Your task to perform on an android device: open app "Reddit" (install if not already installed) Image 0: 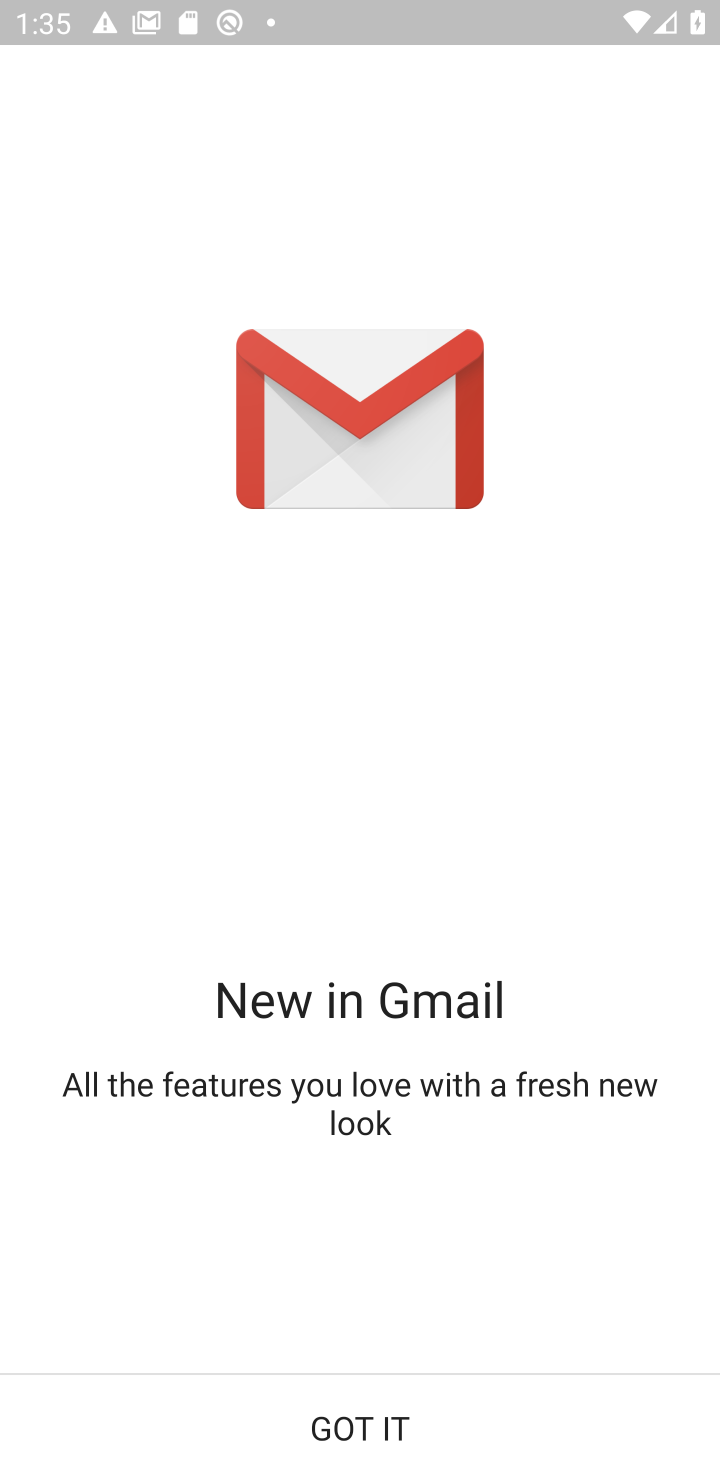
Step 0: press home button
Your task to perform on an android device: open app "Reddit" (install if not already installed) Image 1: 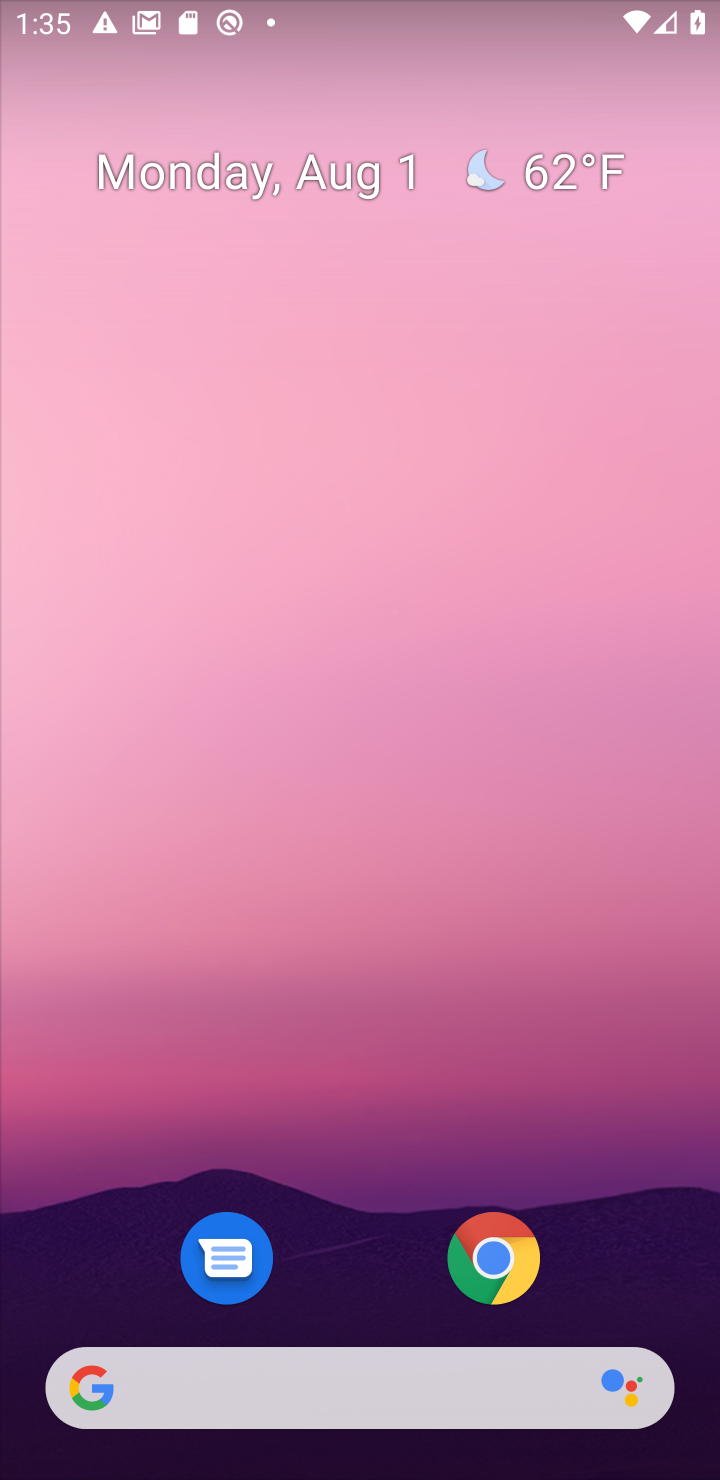
Step 1: drag from (394, 753) to (520, 4)
Your task to perform on an android device: open app "Reddit" (install if not already installed) Image 2: 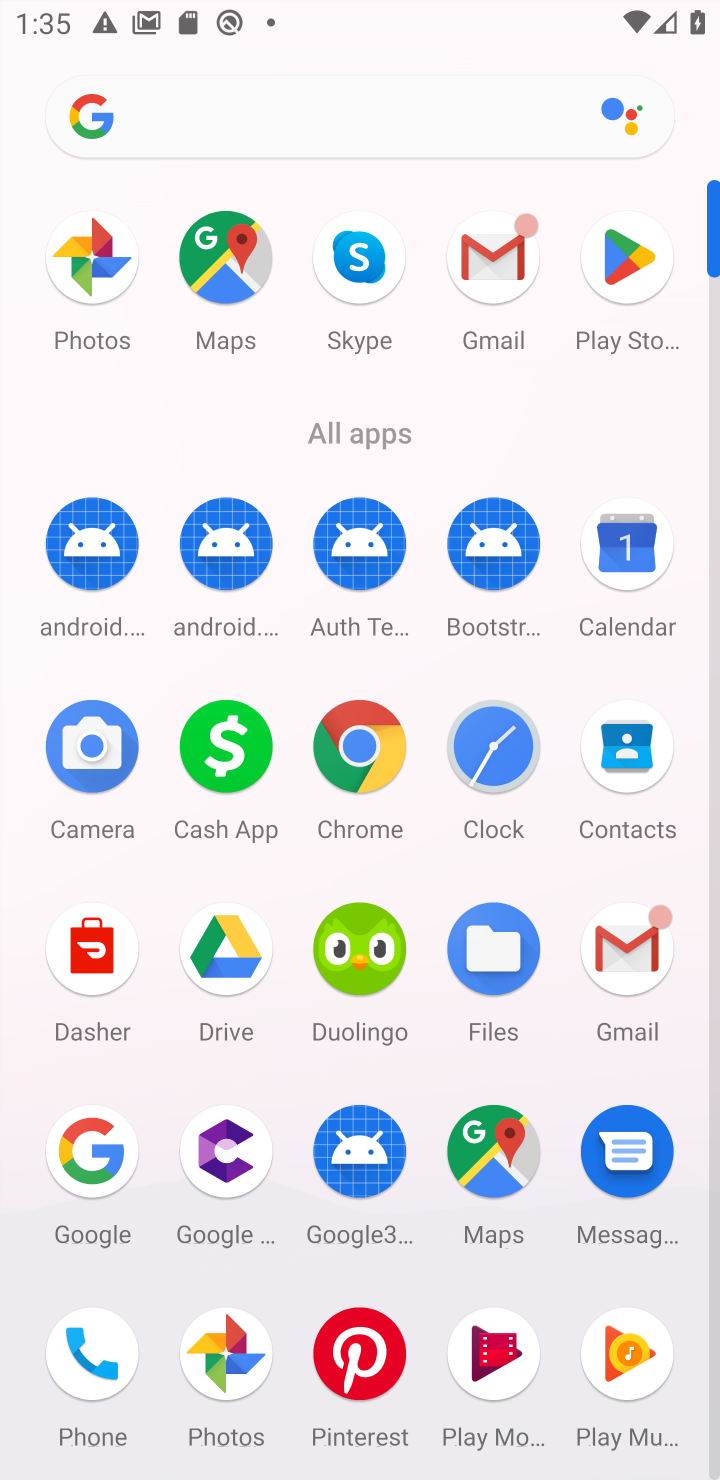
Step 2: click (647, 234)
Your task to perform on an android device: open app "Reddit" (install if not already installed) Image 3: 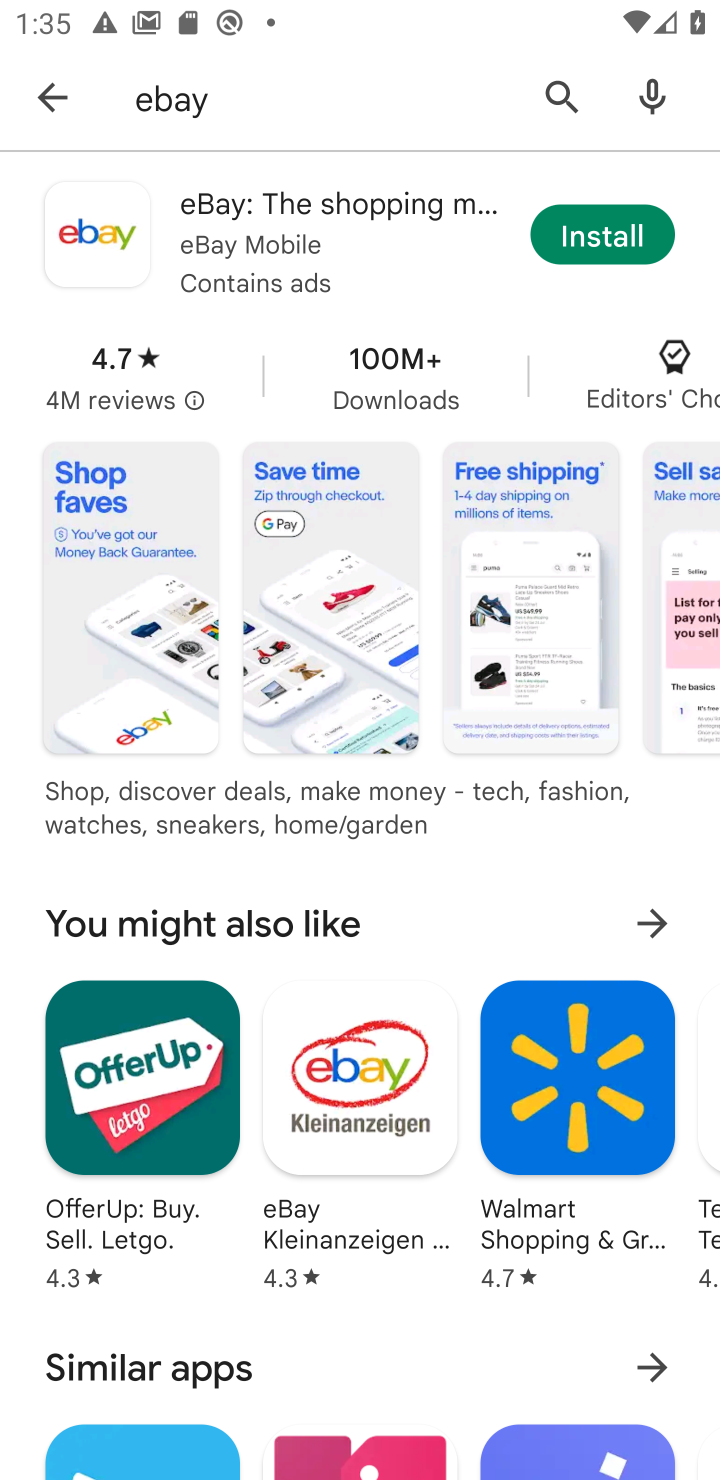
Step 3: click (562, 81)
Your task to perform on an android device: open app "Reddit" (install if not already installed) Image 4: 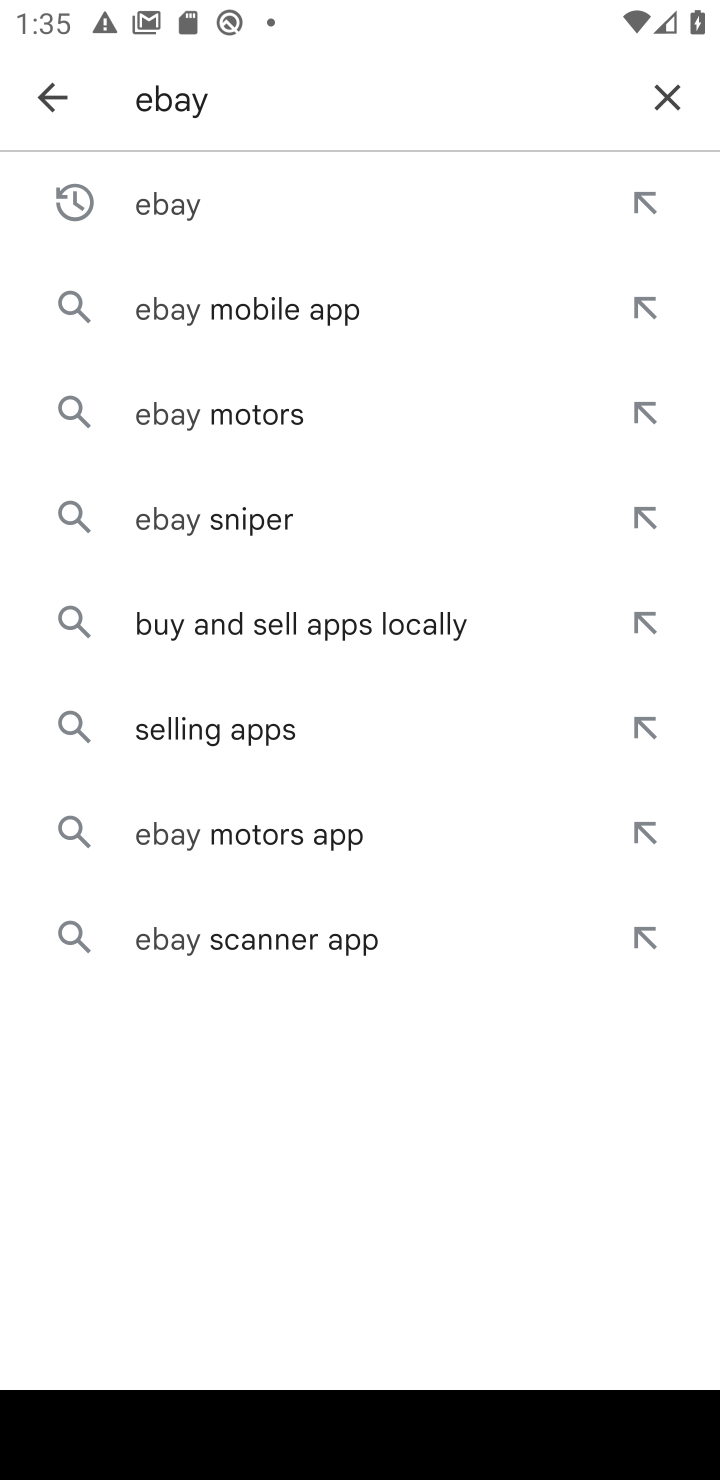
Step 4: click (668, 77)
Your task to perform on an android device: open app "Reddit" (install if not already installed) Image 5: 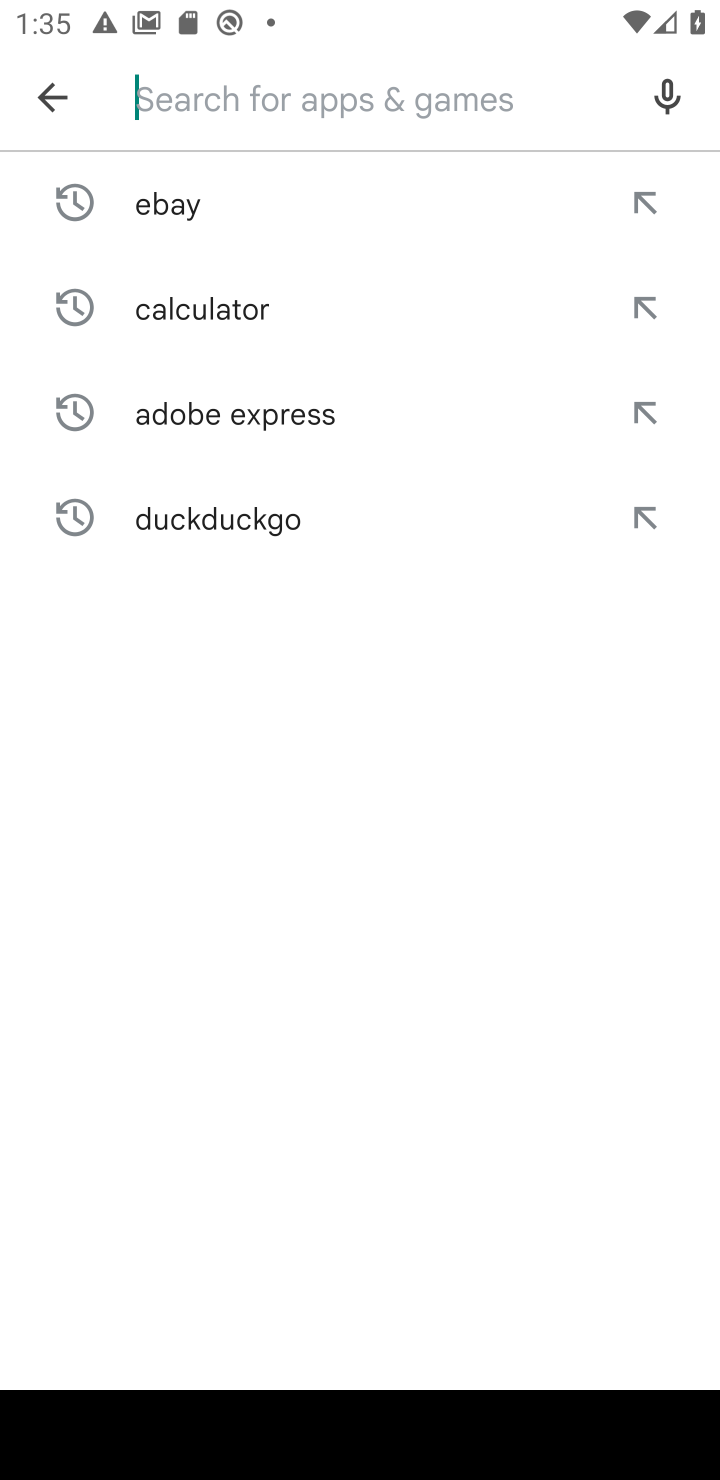
Step 5: click (299, 98)
Your task to perform on an android device: open app "Reddit" (install if not already installed) Image 6: 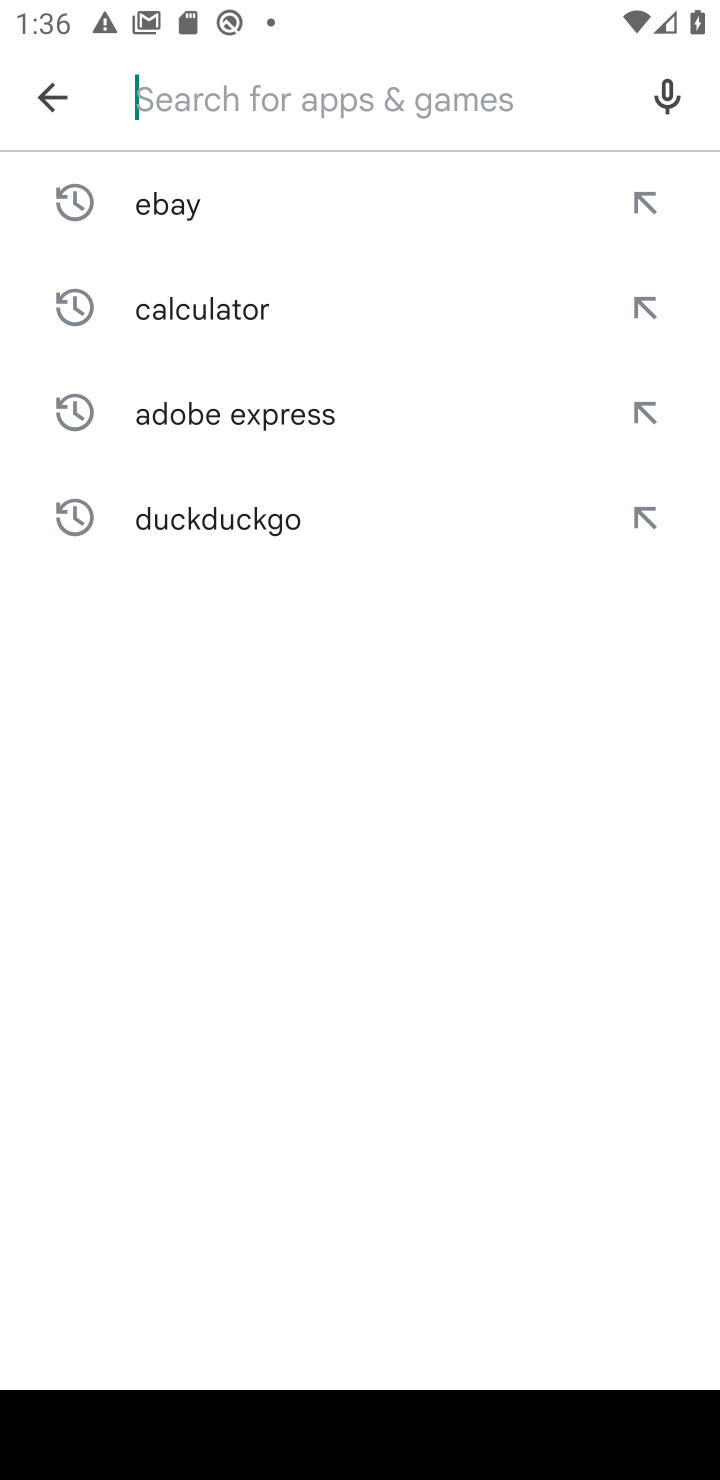
Step 6: type "reddit"
Your task to perform on an android device: open app "Reddit" (install if not already installed) Image 7: 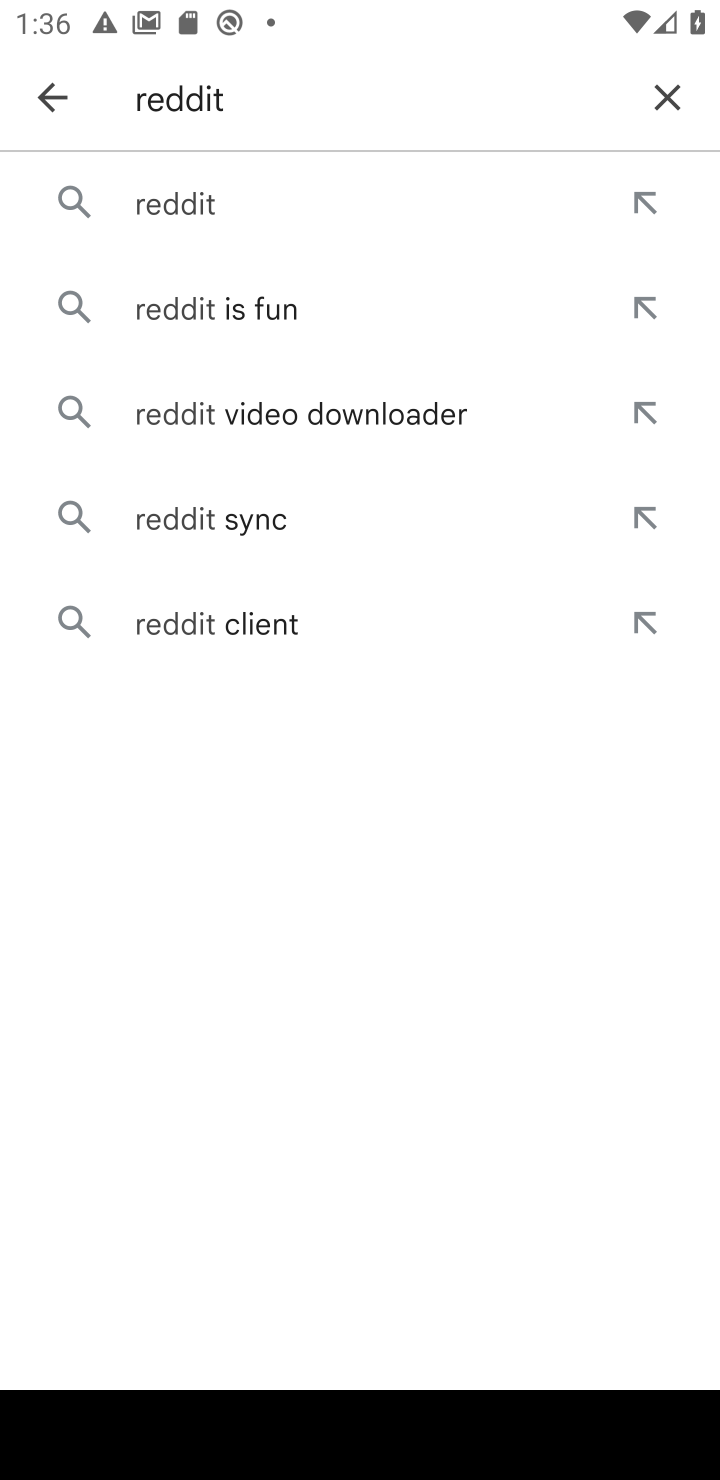
Step 7: click (226, 216)
Your task to perform on an android device: open app "Reddit" (install if not already installed) Image 8: 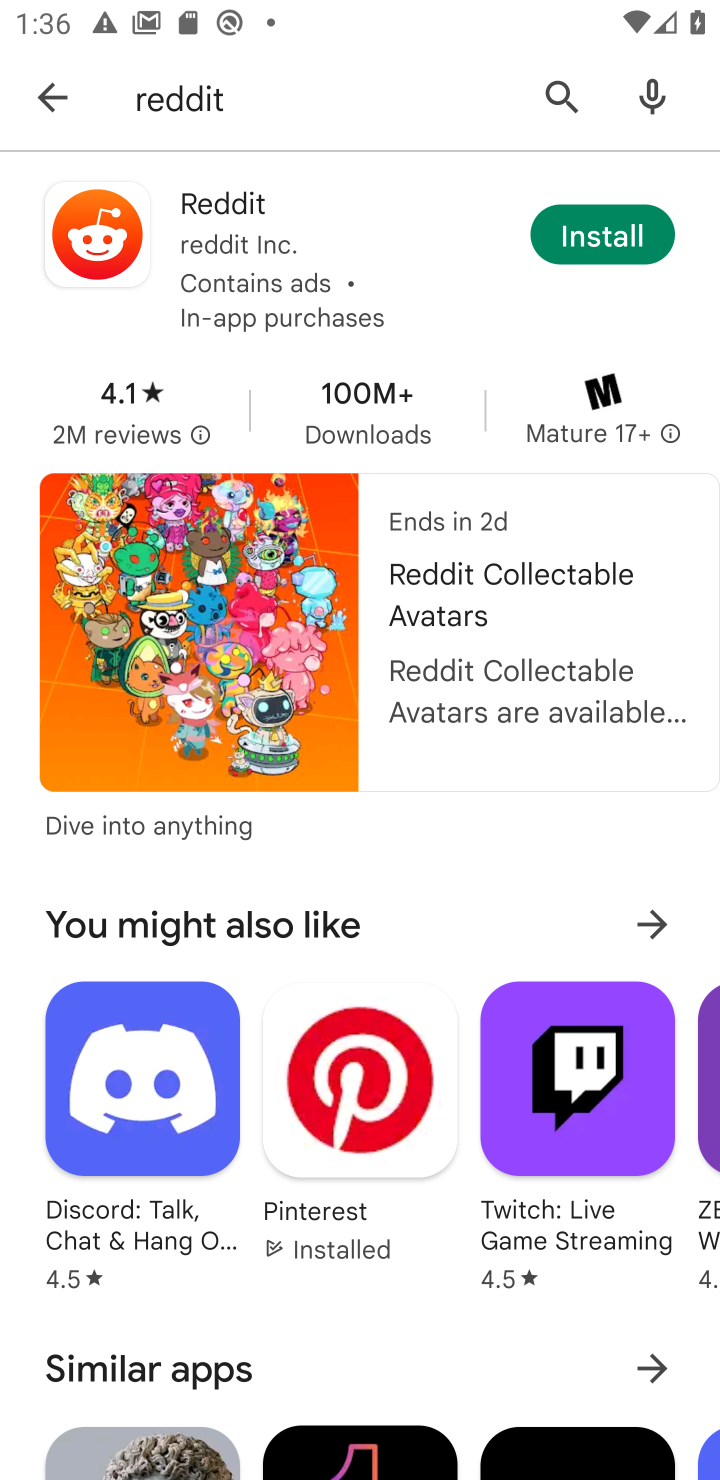
Step 8: click (616, 224)
Your task to perform on an android device: open app "Reddit" (install if not already installed) Image 9: 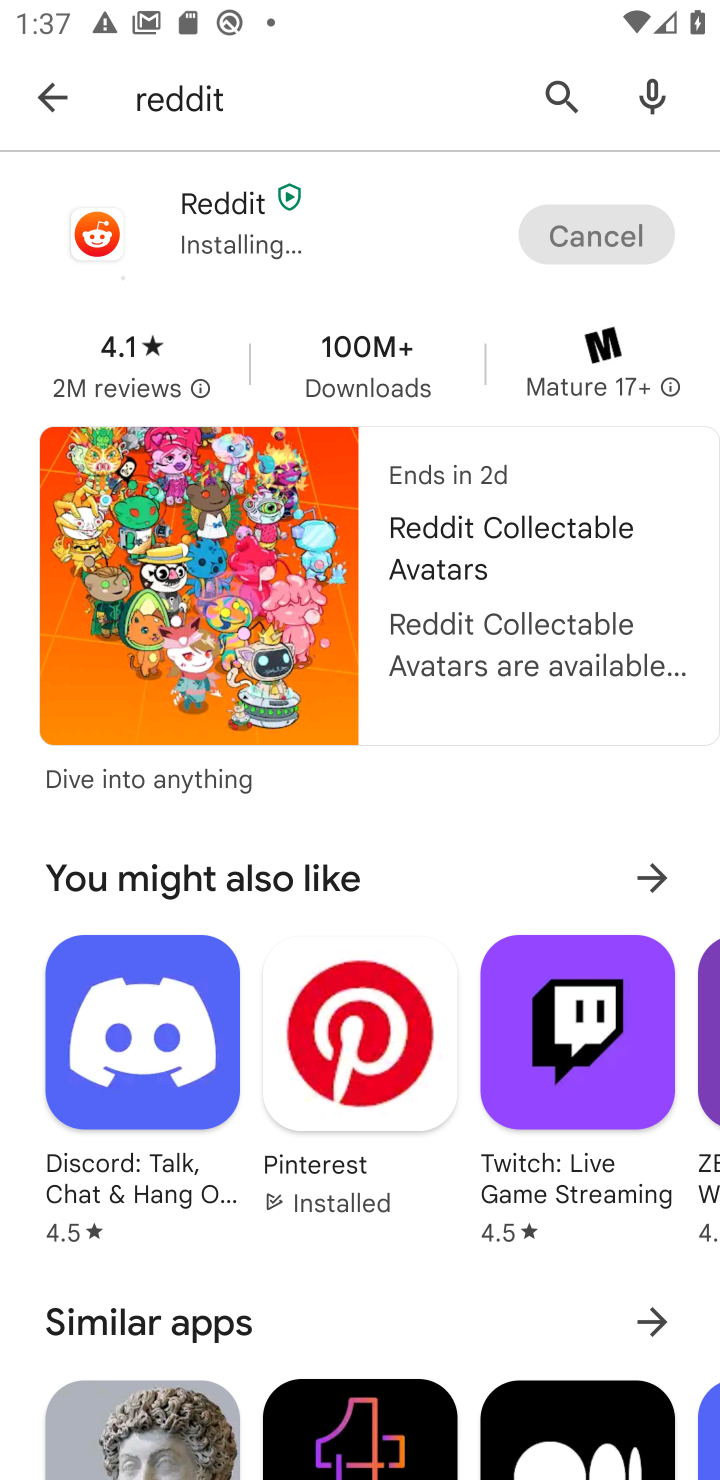
Step 9: click (609, 225)
Your task to perform on an android device: open app "Reddit" (install if not already installed) Image 10: 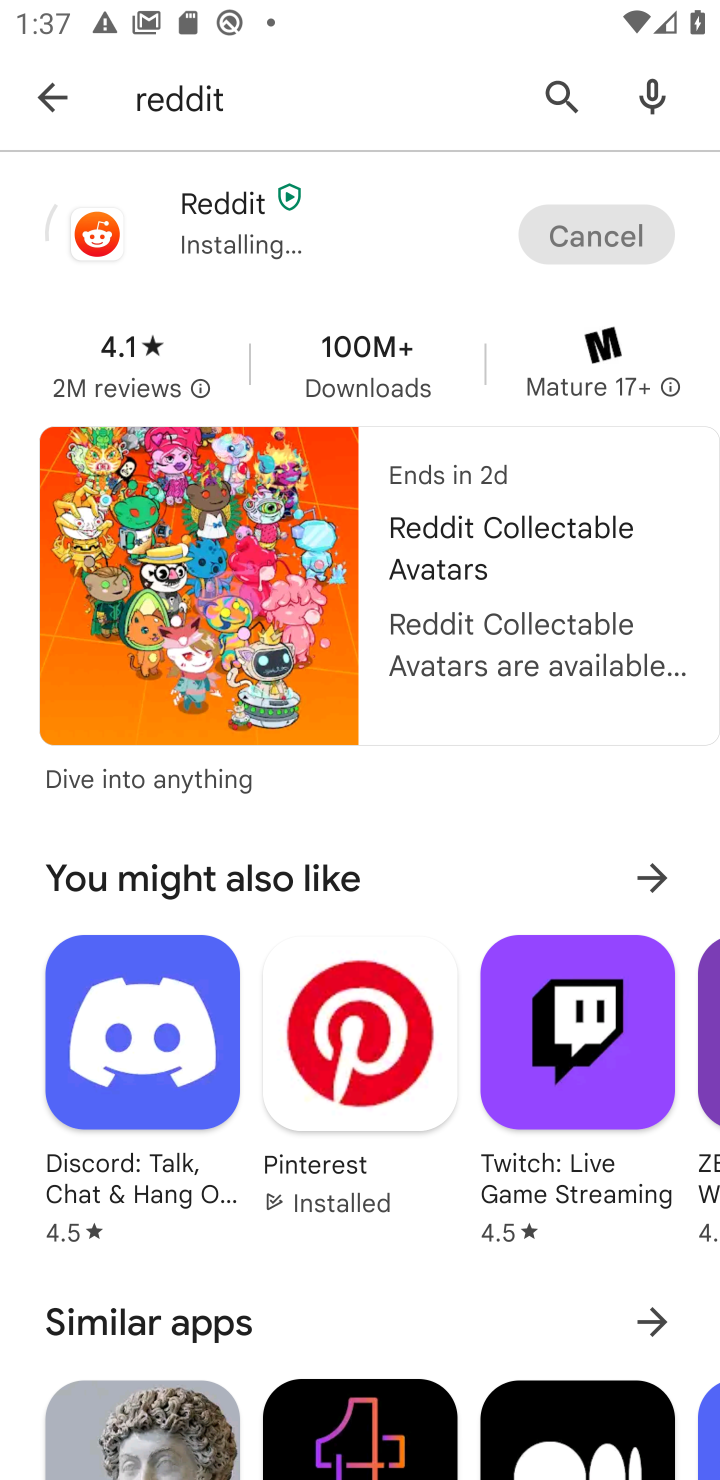
Step 10: click (54, 90)
Your task to perform on an android device: open app "Reddit" (install if not already installed) Image 11: 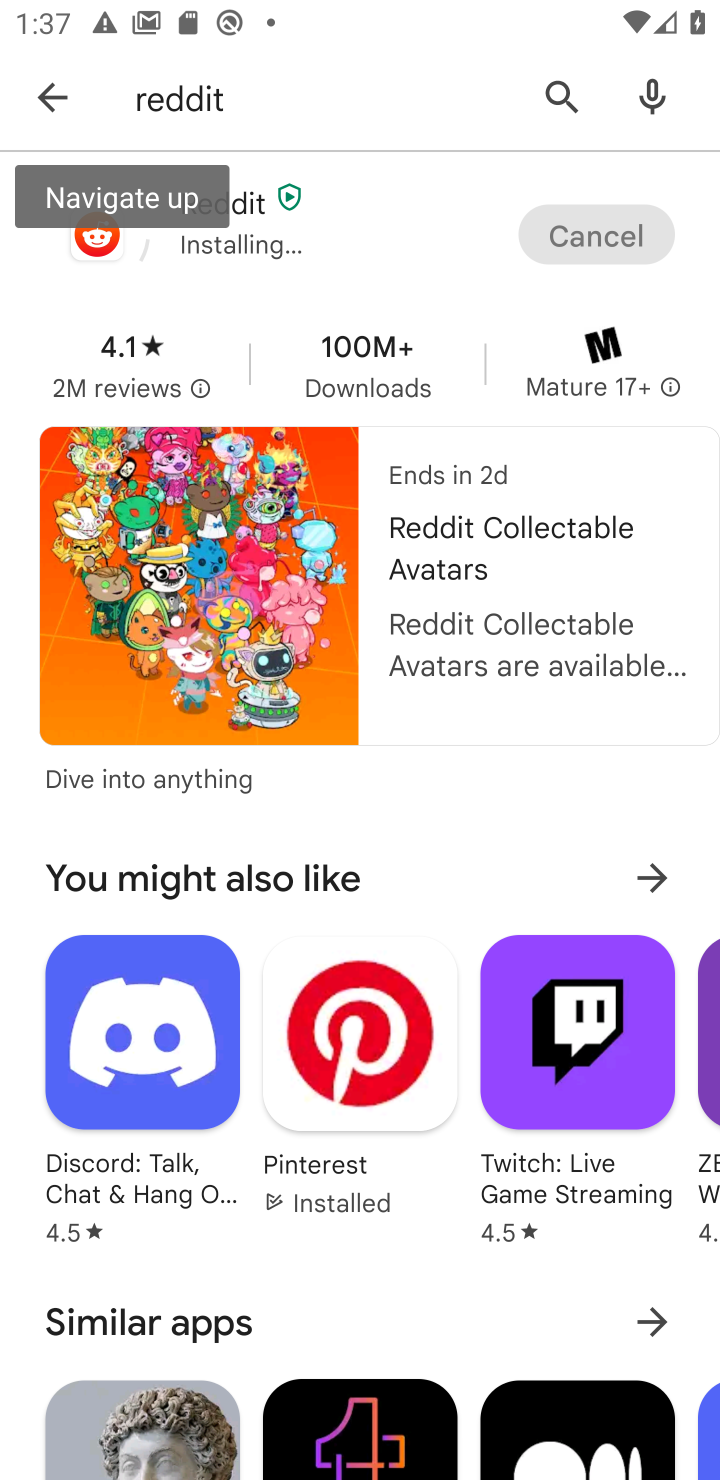
Step 11: click (60, 99)
Your task to perform on an android device: open app "Reddit" (install if not already installed) Image 12: 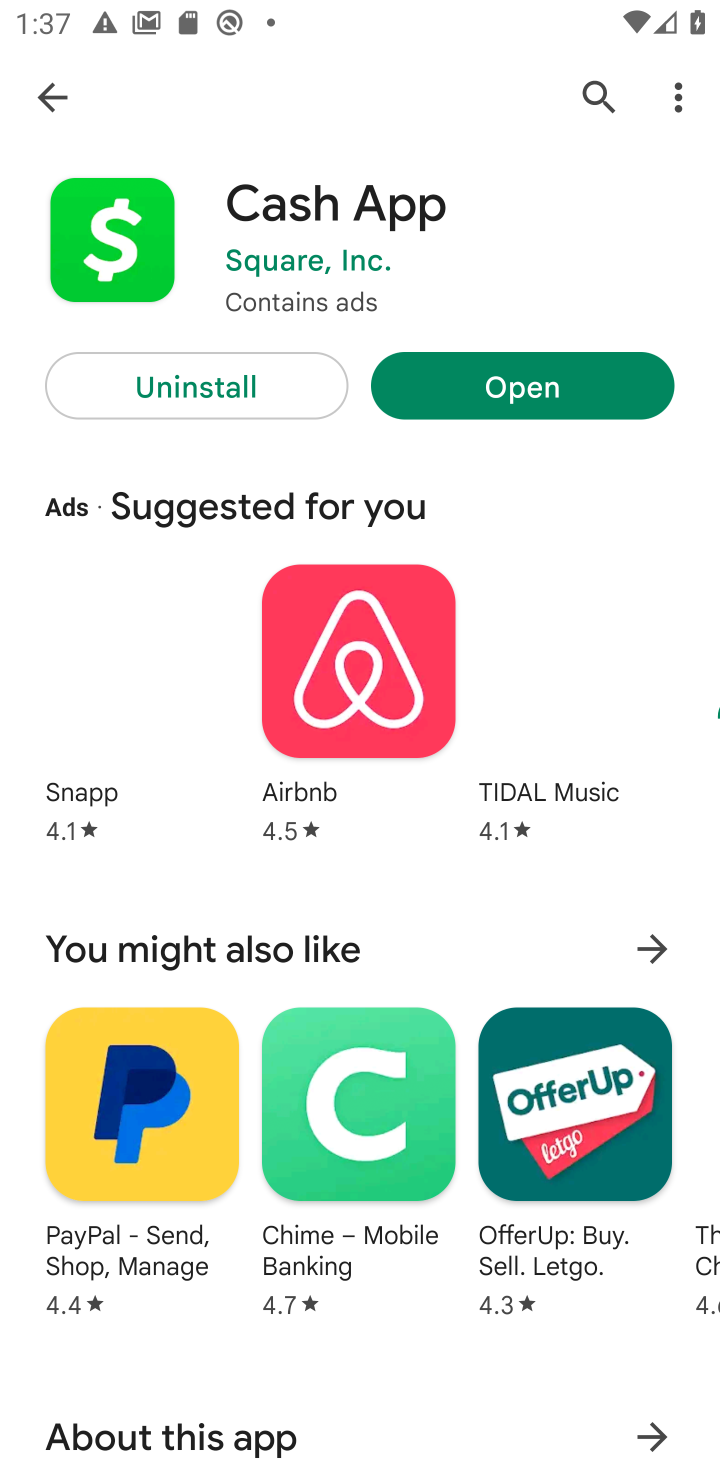
Step 12: click (583, 90)
Your task to perform on an android device: open app "Reddit" (install if not already installed) Image 13: 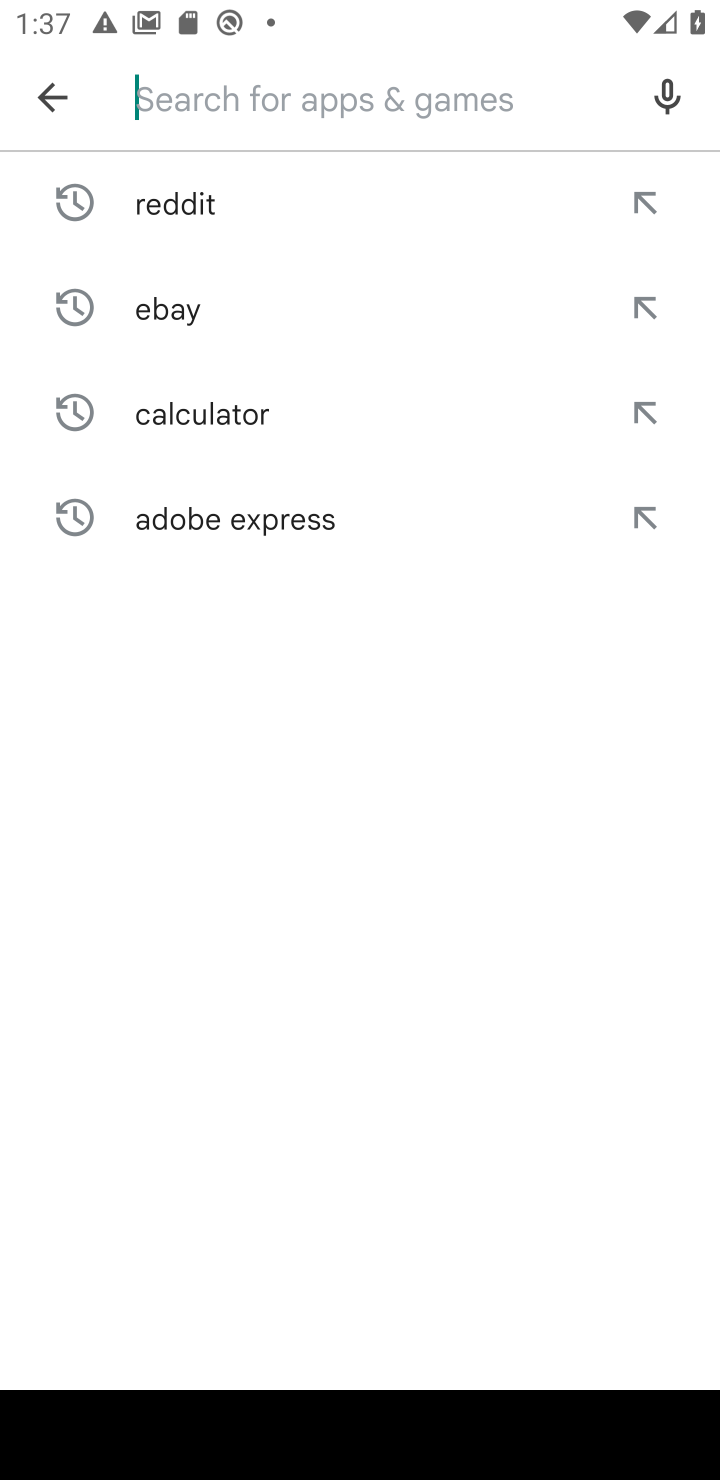
Step 13: click (239, 211)
Your task to perform on an android device: open app "Reddit" (install if not already installed) Image 14: 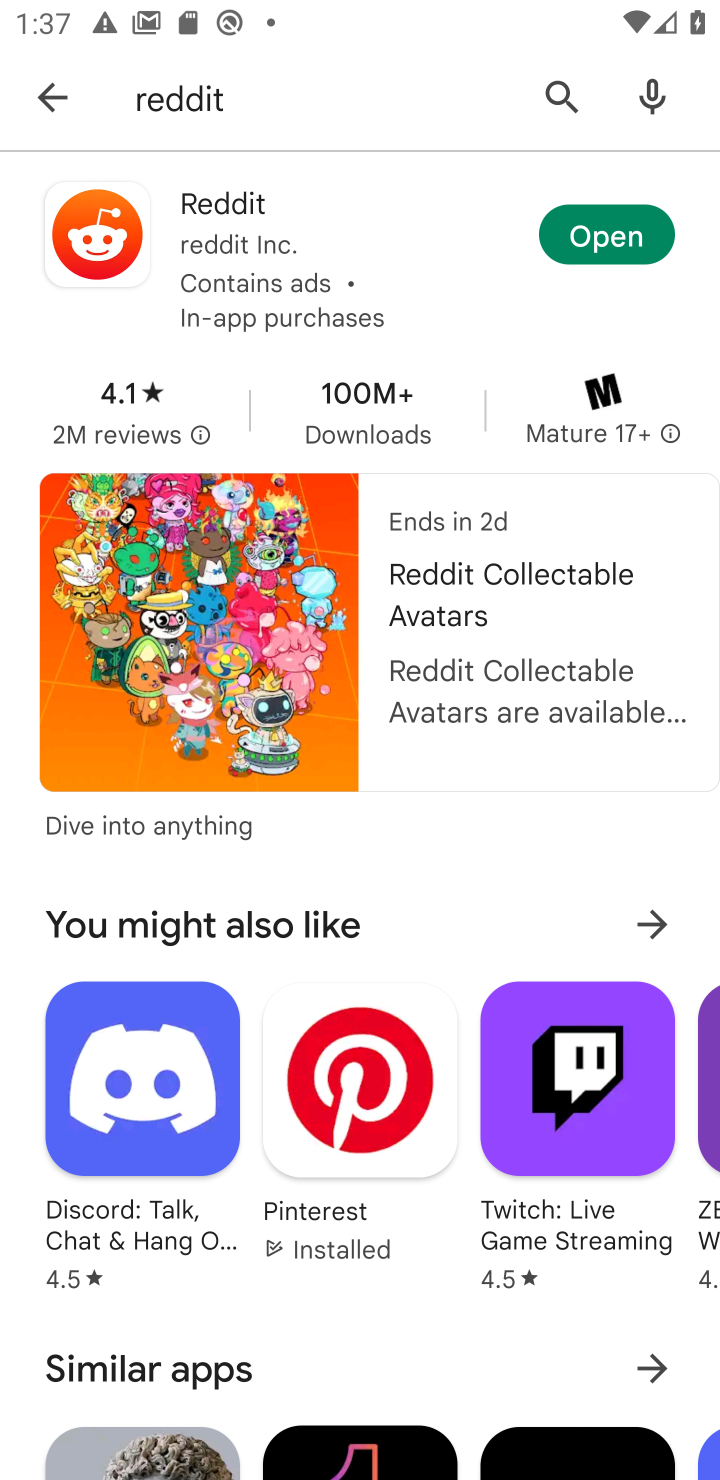
Step 14: click (593, 239)
Your task to perform on an android device: open app "Reddit" (install if not already installed) Image 15: 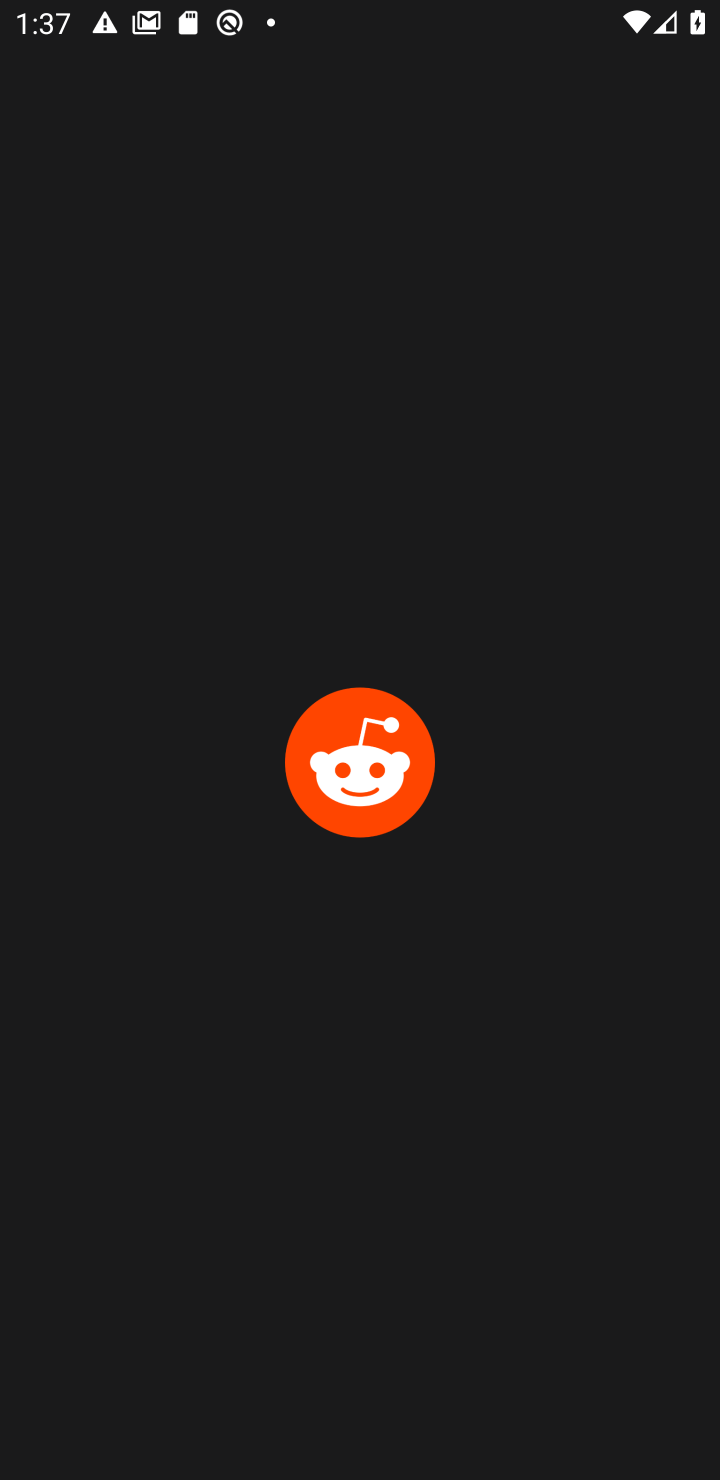
Step 15: task complete